Your task to perform on an android device: turn on javascript in the chrome app Image 0: 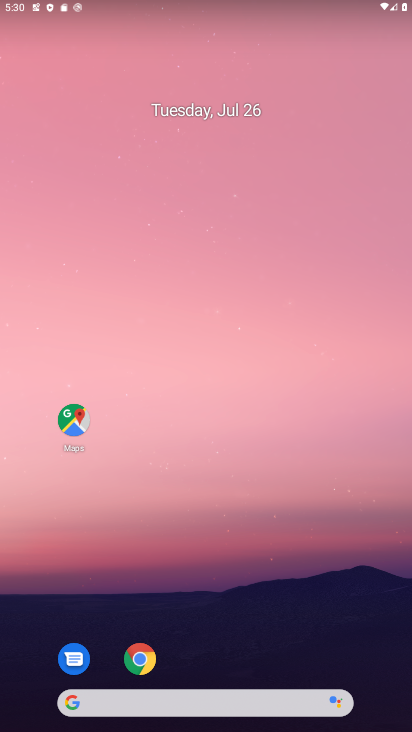
Step 0: drag from (281, 492) to (263, 70)
Your task to perform on an android device: turn on javascript in the chrome app Image 1: 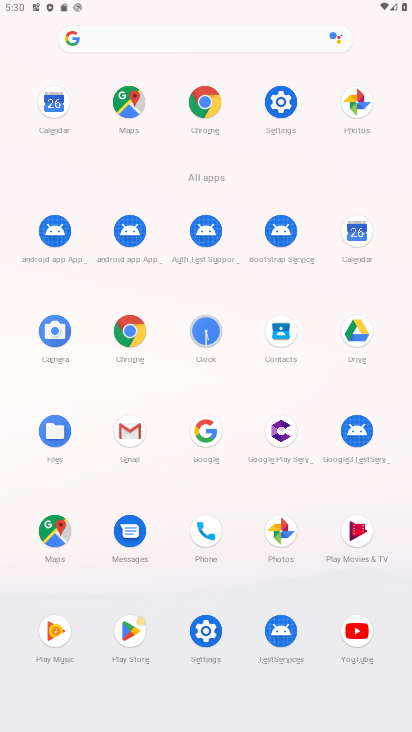
Step 1: click (197, 92)
Your task to perform on an android device: turn on javascript in the chrome app Image 2: 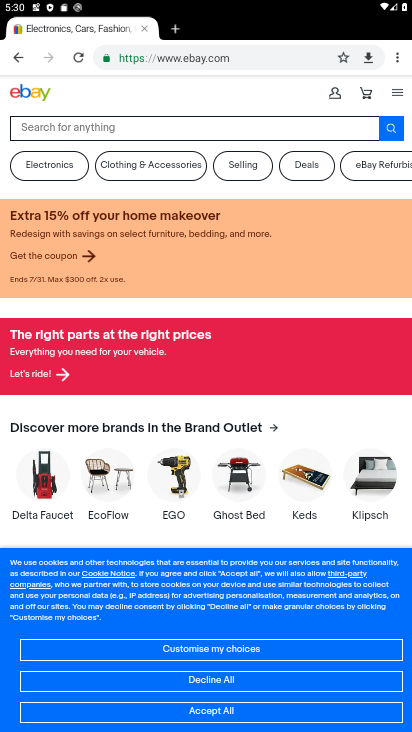
Step 2: task complete